Your task to perform on an android device: delete location history Image 0: 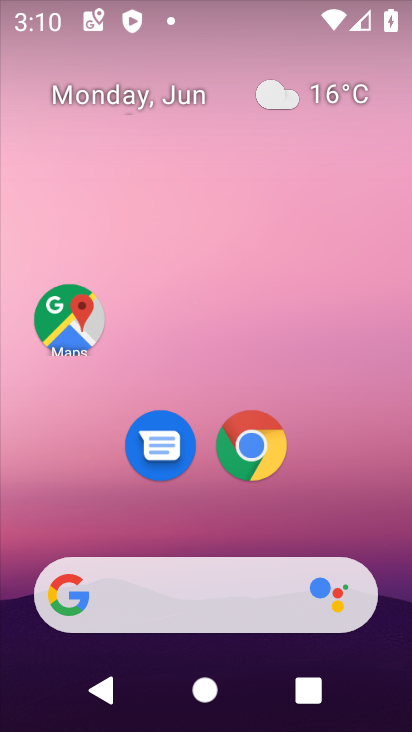
Step 0: drag from (256, 524) to (229, 195)
Your task to perform on an android device: delete location history Image 1: 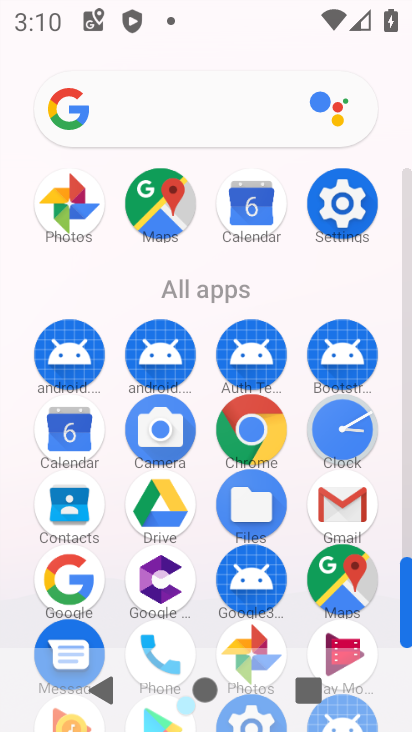
Step 1: click (239, 428)
Your task to perform on an android device: delete location history Image 2: 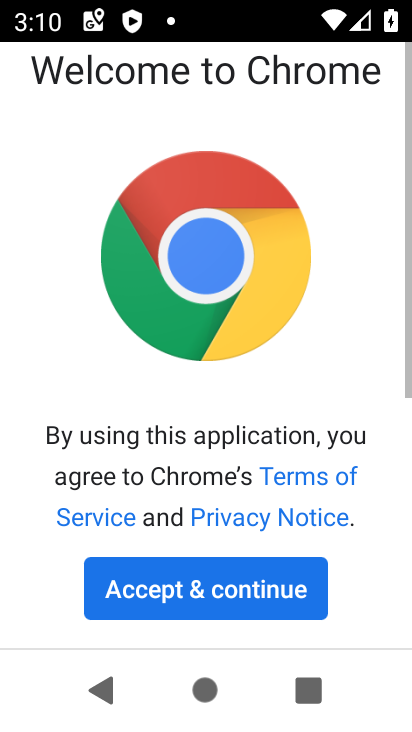
Step 2: press home button
Your task to perform on an android device: delete location history Image 3: 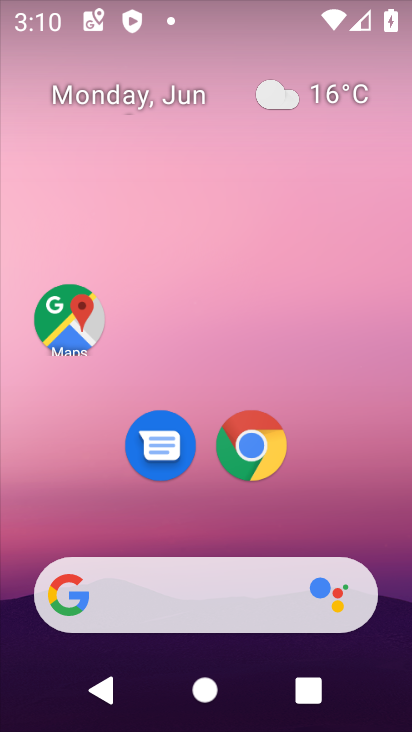
Step 3: click (60, 304)
Your task to perform on an android device: delete location history Image 4: 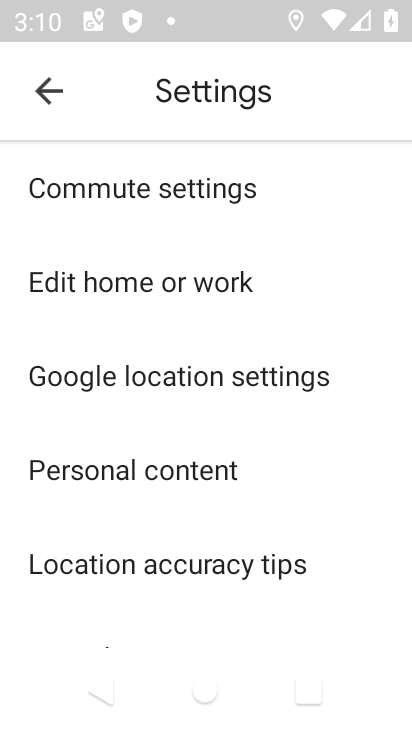
Step 4: click (54, 75)
Your task to perform on an android device: delete location history Image 5: 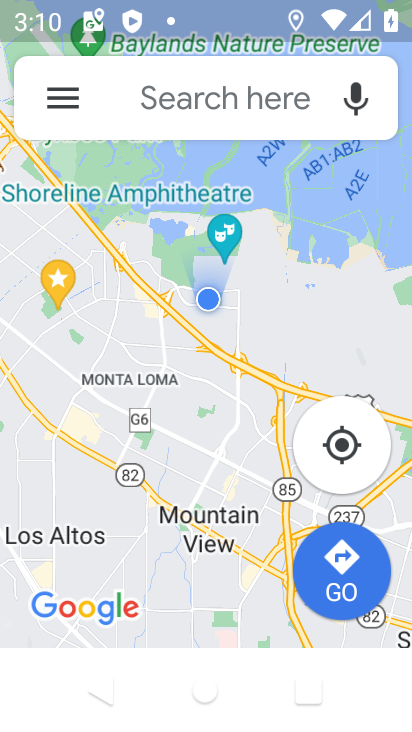
Step 5: click (56, 89)
Your task to perform on an android device: delete location history Image 6: 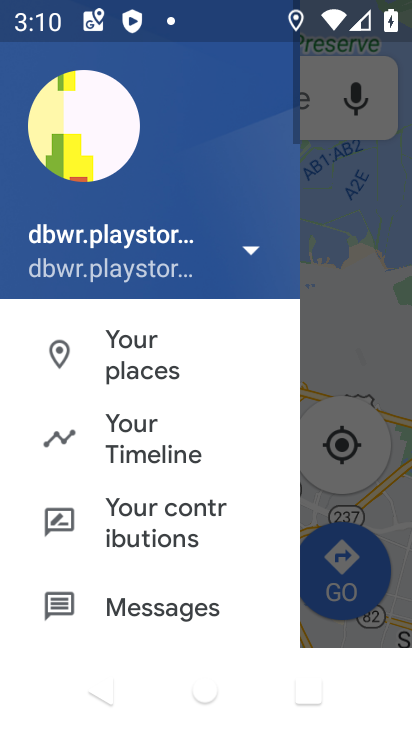
Step 6: click (190, 433)
Your task to perform on an android device: delete location history Image 7: 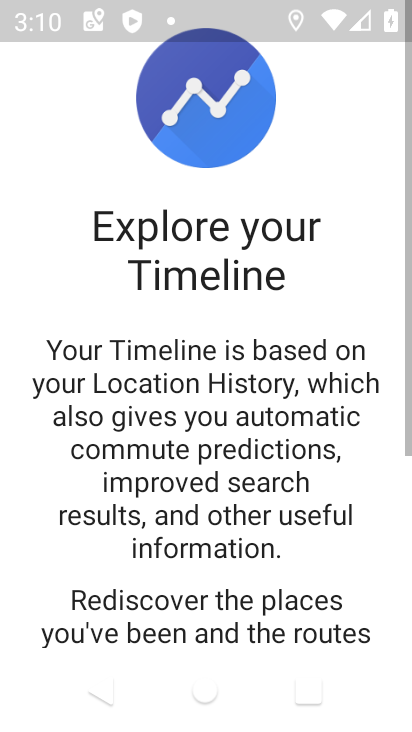
Step 7: drag from (239, 543) to (236, 222)
Your task to perform on an android device: delete location history Image 8: 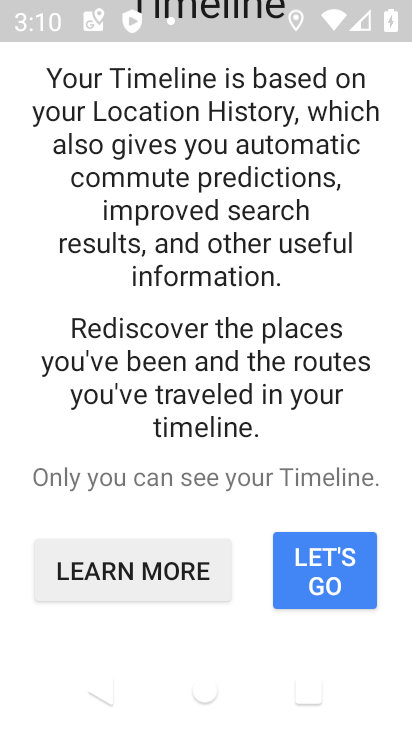
Step 8: click (315, 566)
Your task to perform on an android device: delete location history Image 9: 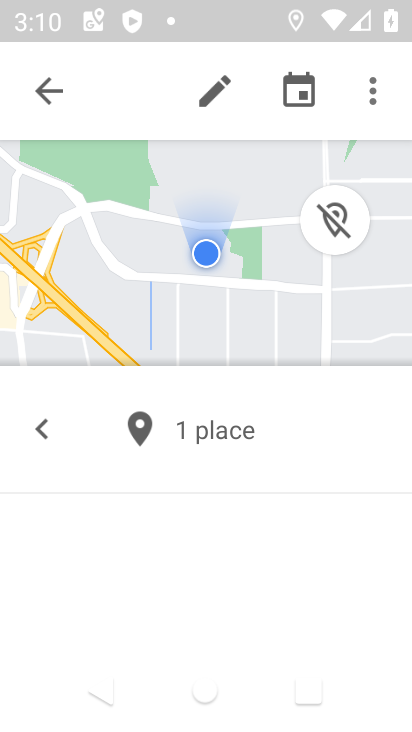
Step 9: click (383, 84)
Your task to perform on an android device: delete location history Image 10: 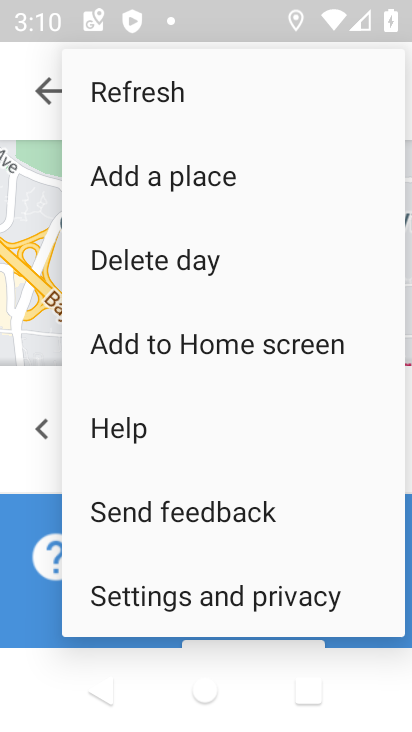
Step 10: click (216, 607)
Your task to perform on an android device: delete location history Image 11: 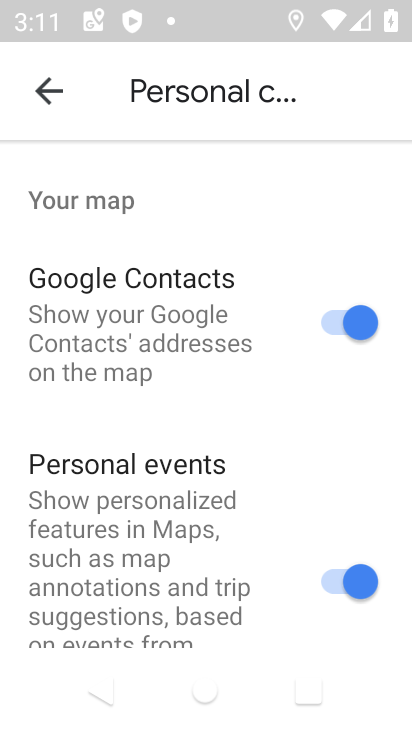
Step 11: drag from (246, 601) to (204, 232)
Your task to perform on an android device: delete location history Image 12: 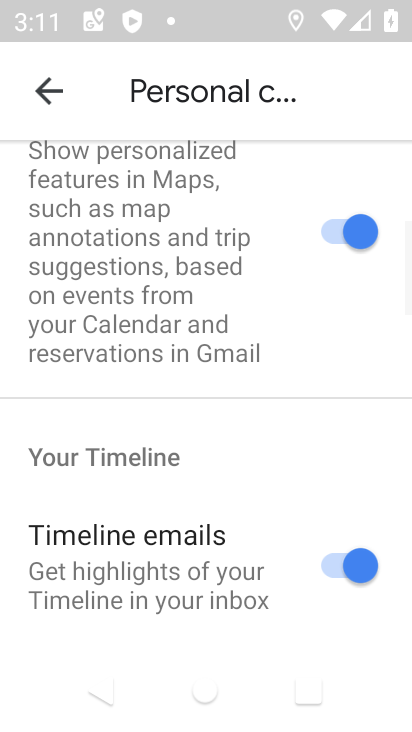
Step 12: drag from (183, 556) to (190, 132)
Your task to perform on an android device: delete location history Image 13: 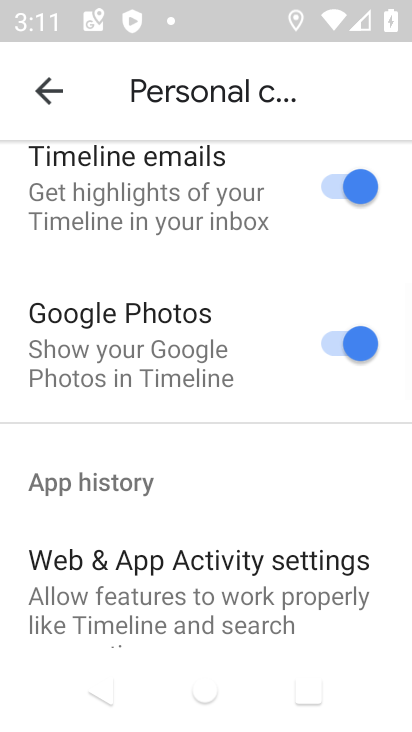
Step 13: drag from (179, 540) to (198, 167)
Your task to perform on an android device: delete location history Image 14: 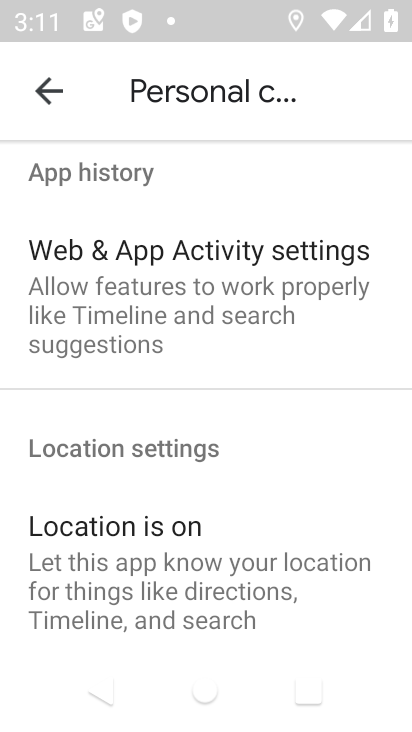
Step 14: drag from (169, 507) to (196, 196)
Your task to perform on an android device: delete location history Image 15: 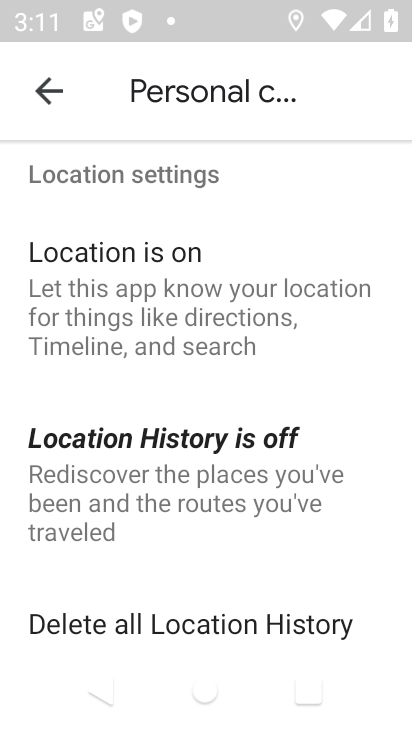
Step 15: click (173, 495)
Your task to perform on an android device: delete location history Image 16: 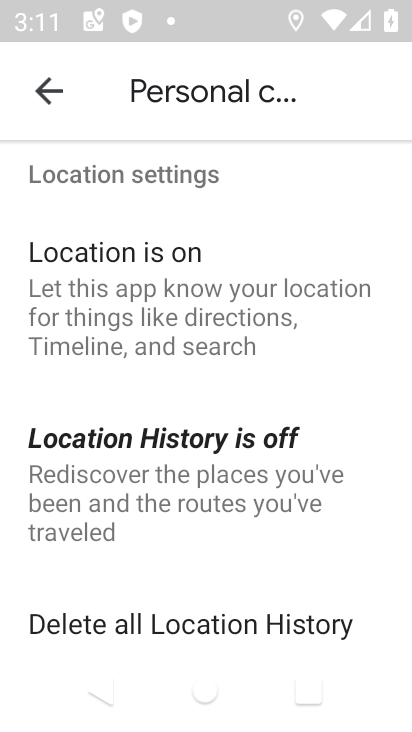
Step 16: drag from (176, 491) to (181, 140)
Your task to perform on an android device: delete location history Image 17: 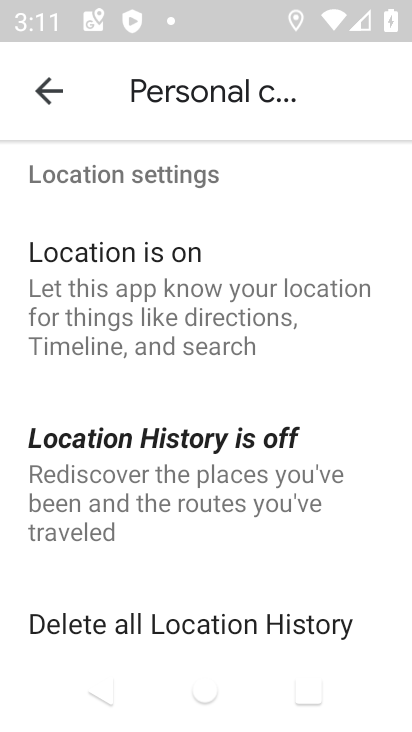
Step 17: drag from (199, 512) to (211, 242)
Your task to perform on an android device: delete location history Image 18: 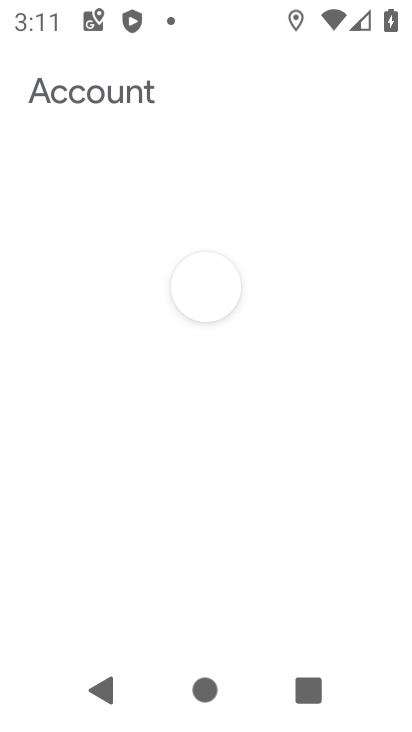
Step 18: drag from (232, 435) to (238, 183)
Your task to perform on an android device: delete location history Image 19: 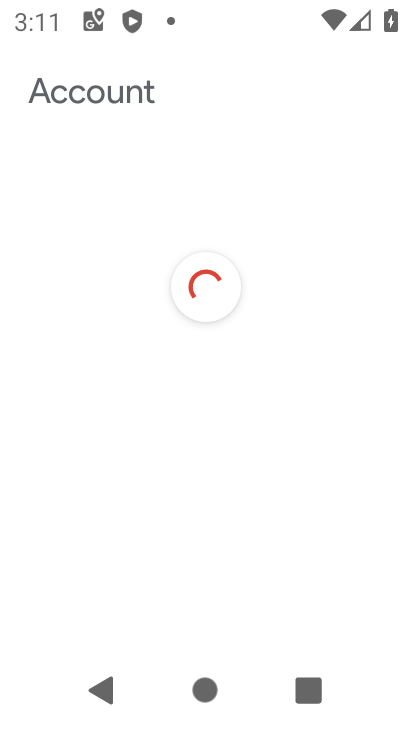
Step 19: press back button
Your task to perform on an android device: delete location history Image 20: 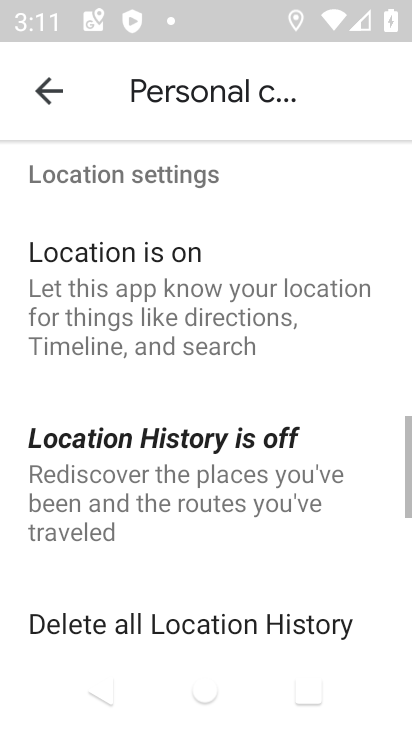
Step 20: drag from (231, 562) to (261, 237)
Your task to perform on an android device: delete location history Image 21: 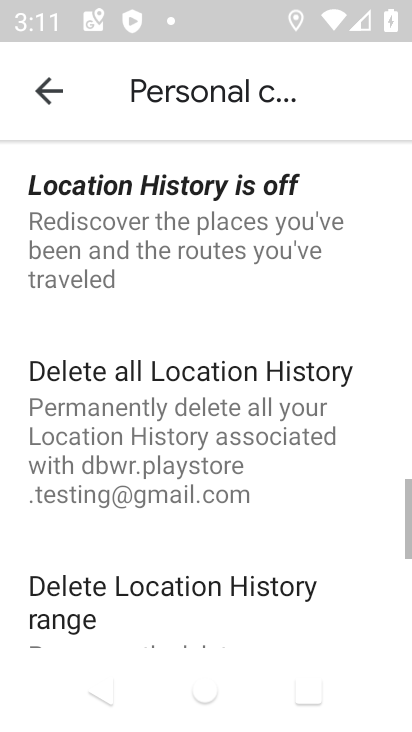
Step 21: click (218, 486)
Your task to perform on an android device: delete location history Image 22: 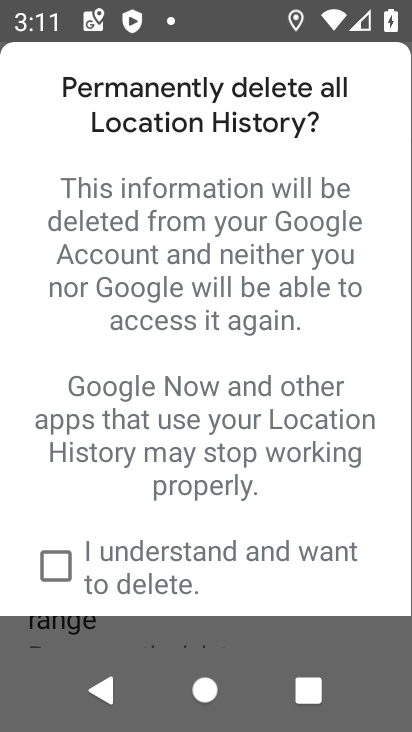
Step 22: click (19, 545)
Your task to perform on an android device: delete location history Image 23: 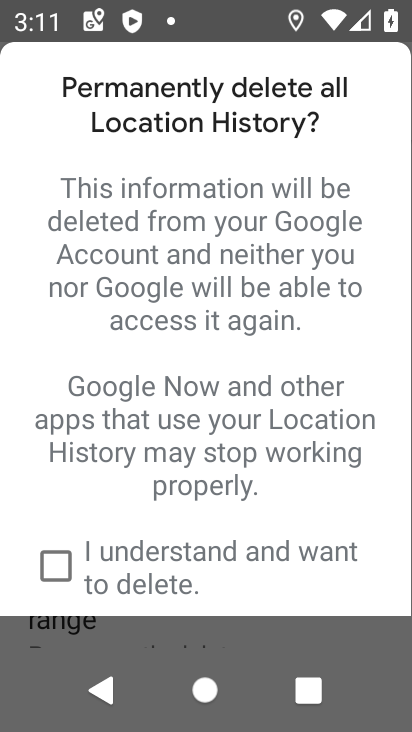
Step 23: click (69, 564)
Your task to perform on an android device: delete location history Image 24: 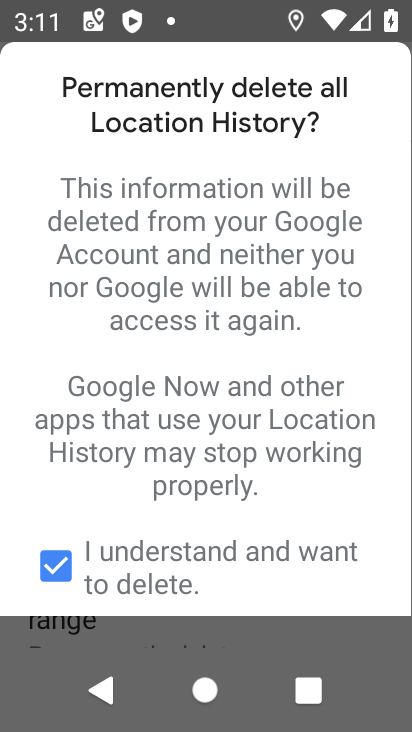
Step 24: drag from (183, 527) to (216, 220)
Your task to perform on an android device: delete location history Image 25: 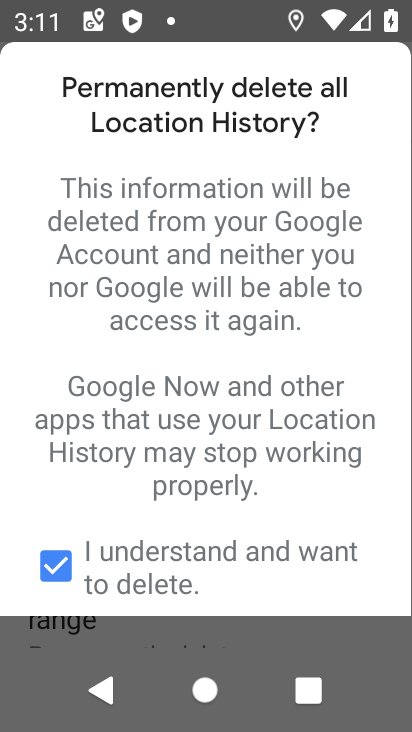
Step 25: click (171, 574)
Your task to perform on an android device: delete location history Image 26: 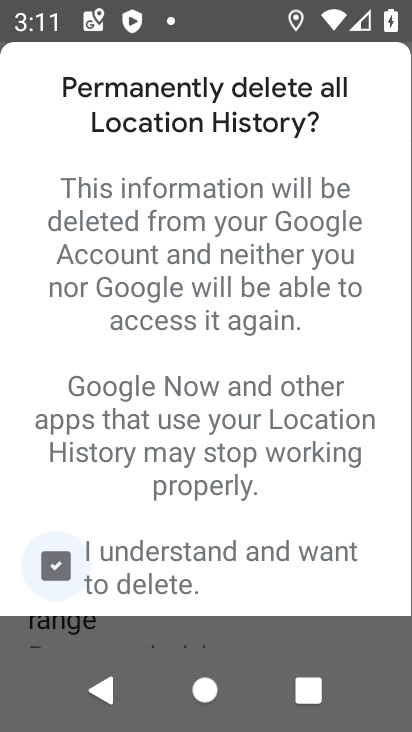
Step 26: click (93, 558)
Your task to perform on an android device: delete location history Image 27: 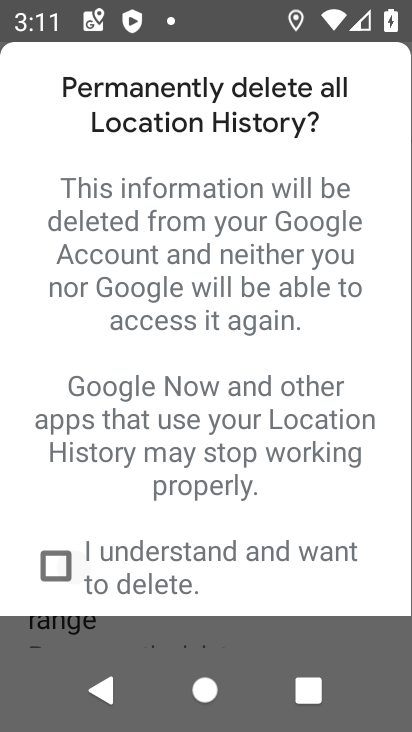
Step 27: click (93, 558)
Your task to perform on an android device: delete location history Image 28: 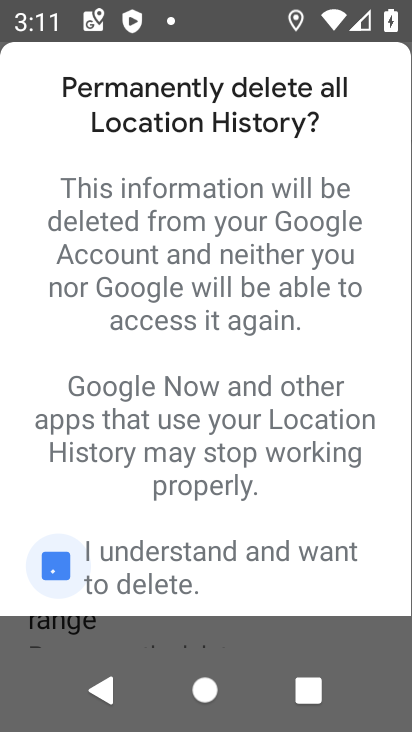
Step 28: task complete